Your task to perform on an android device: Go to sound settings Image 0: 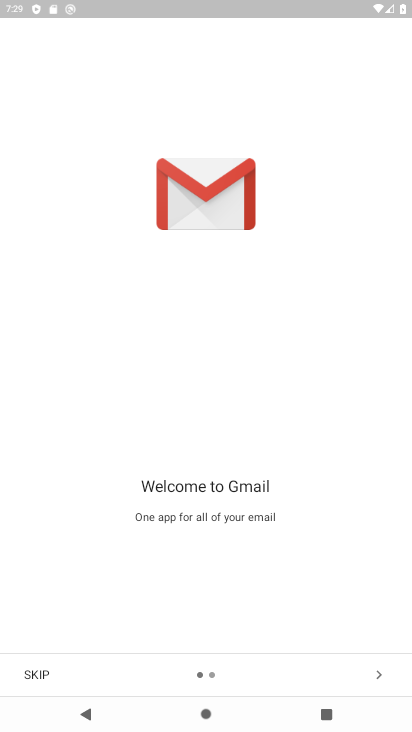
Step 0: press home button
Your task to perform on an android device: Go to sound settings Image 1: 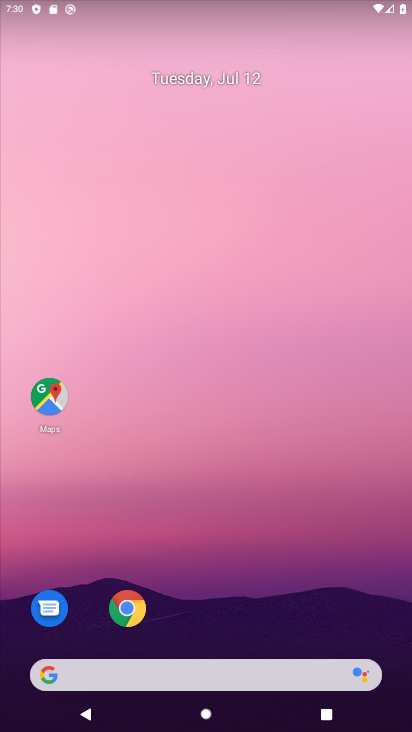
Step 1: drag from (270, 660) to (265, 130)
Your task to perform on an android device: Go to sound settings Image 2: 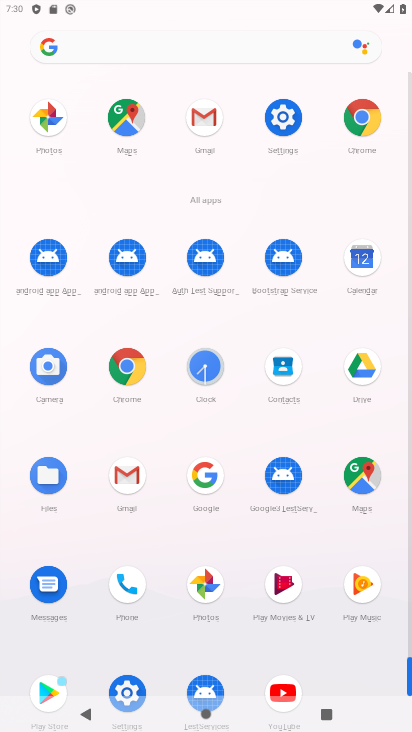
Step 2: click (275, 108)
Your task to perform on an android device: Go to sound settings Image 3: 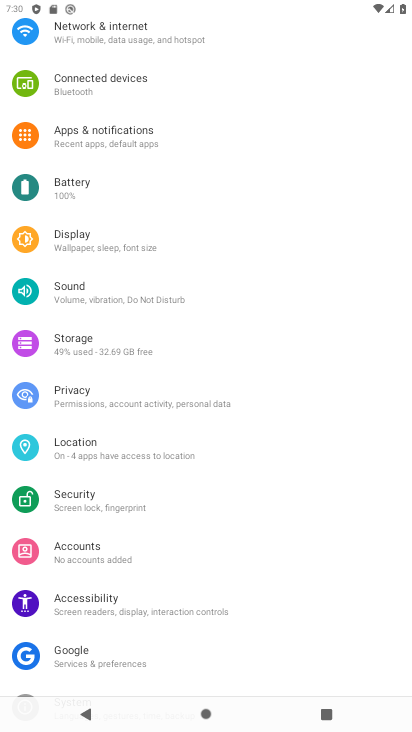
Step 3: click (91, 294)
Your task to perform on an android device: Go to sound settings Image 4: 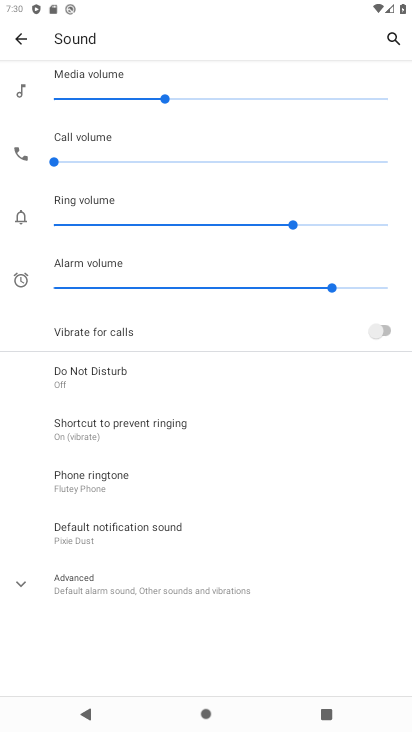
Step 4: task complete